Your task to perform on an android device: empty trash in the gmail app Image 0: 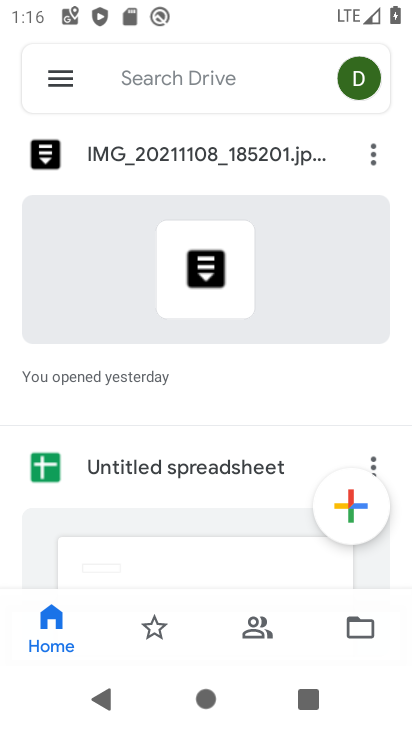
Step 0: press home button
Your task to perform on an android device: empty trash in the gmail app Image 1: 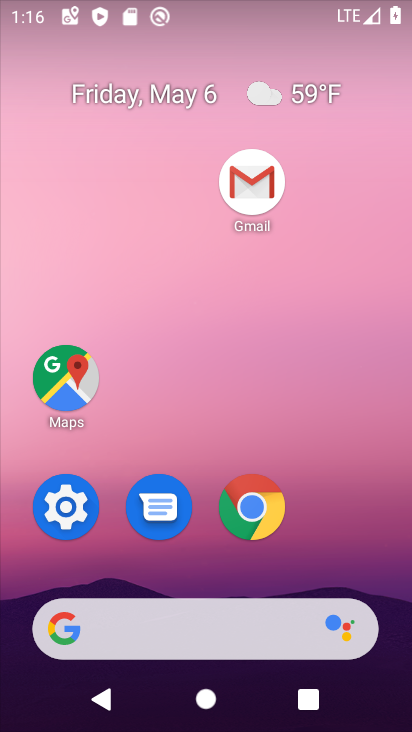
Step 1: click (251, 189)
Your task to perform on an android device: empty trash in the gmail app Image 2: 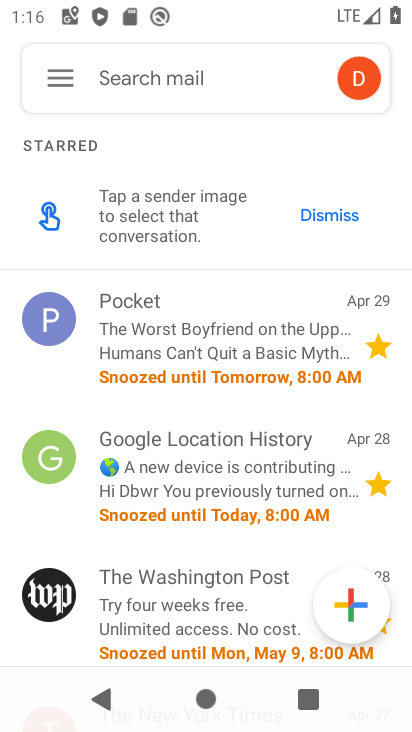
Step 2: click (63, 67)
Your task to perform on an android device: empty trash in the gmail app Image 3: 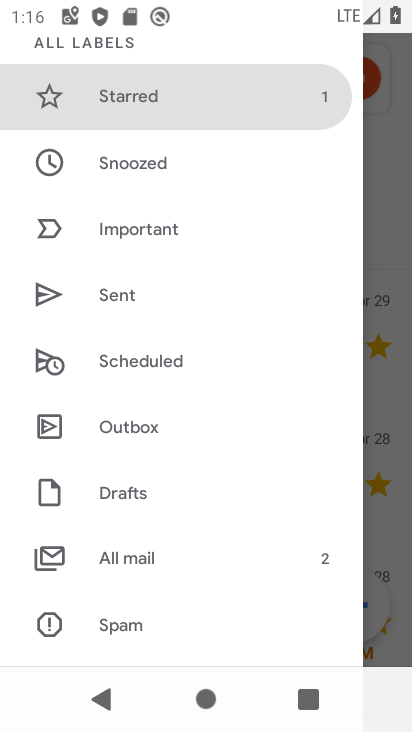
Step 3: drag from (173, 469) to (160, 210)
Your task to perform on an android device: empty trash in the gmail app Image 4: 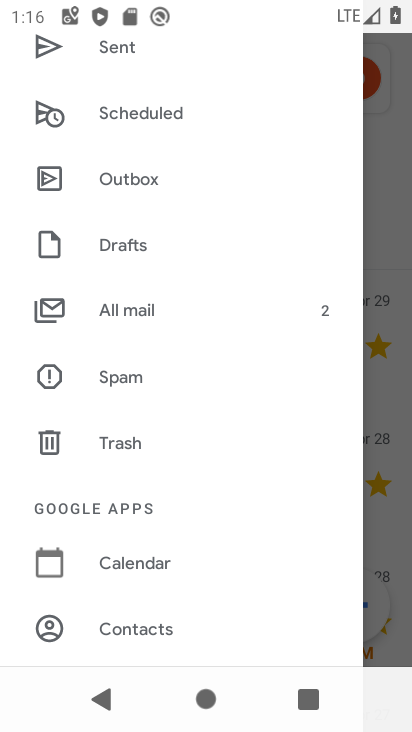
Step 4: click (136, 434)
Your task to perform on an android device: empty trash in the gmail app Image 5: 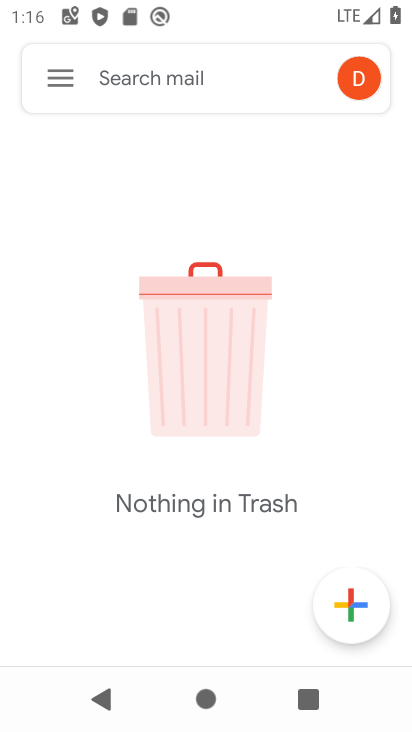
Step 5: task complete